Your task to perform on an android device: Show the shopping cart on newegg.com. Image 0: 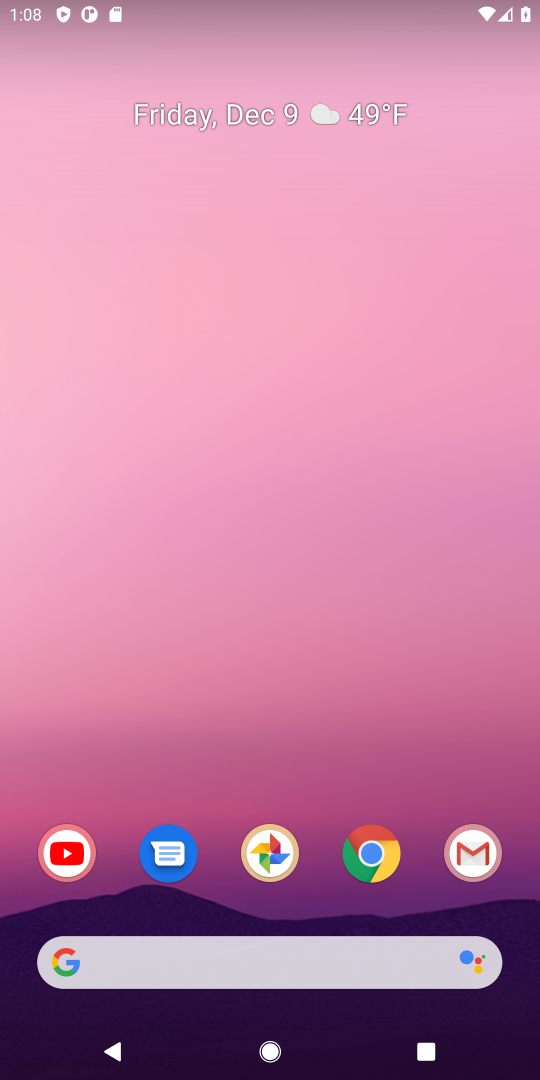
Step 0: drag from (261, 946) to (261, 368)
Your task to perform on an android device: Show the shopping cart on newegg.com. Image 1: 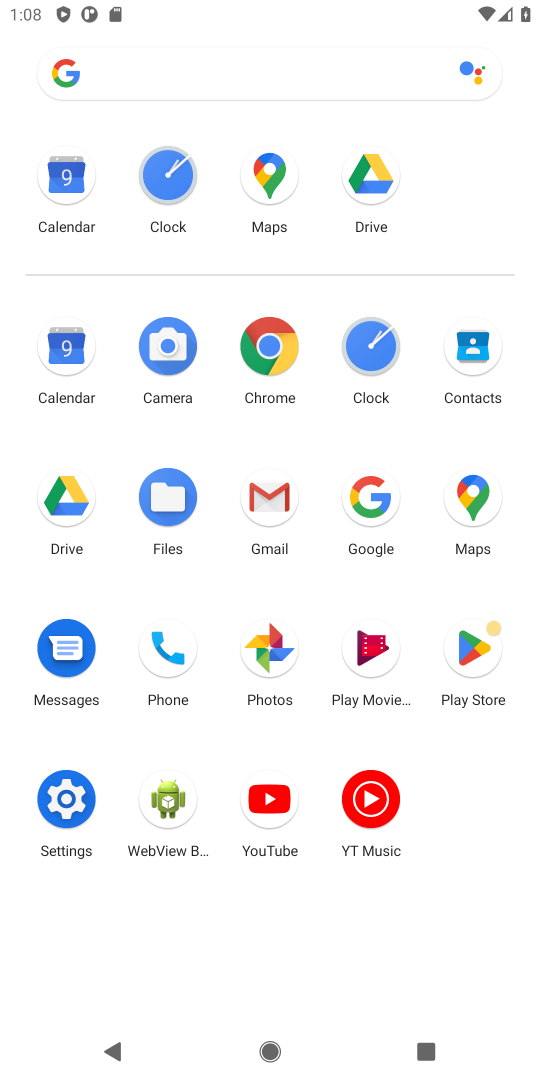
Step 1: click (382, 504)
Your task to perform on an android device: Show the shopping cart on newegg.com. Image 2: 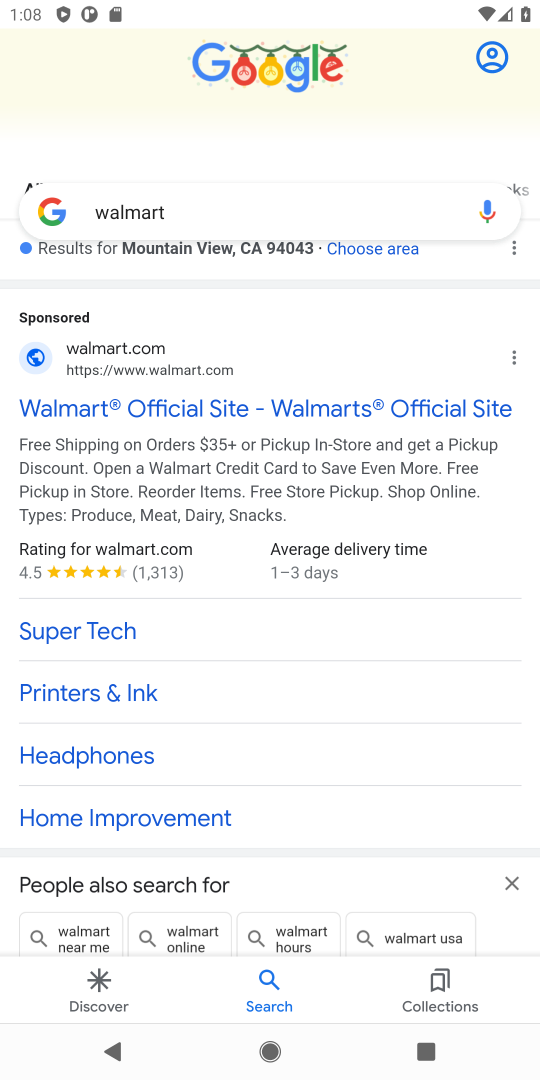
Step 2: click (131, 204)
Your task to perform on an android device: Show the shopping cart on newegg.com. Image 3: 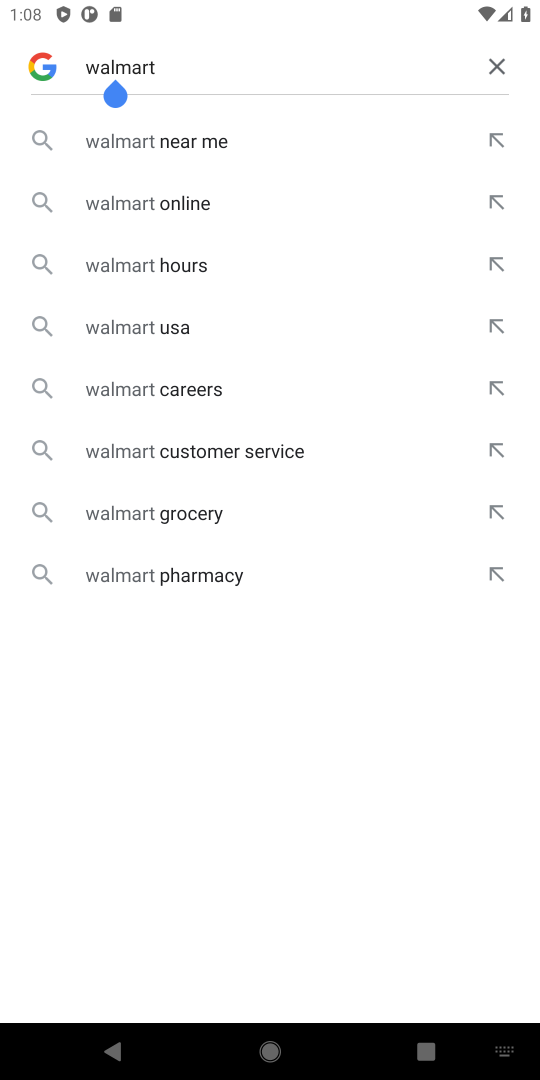
Step 3: click (502, 62)
Your task to perform on an android device: Show the shopping cart on newegg.com. Image 4: 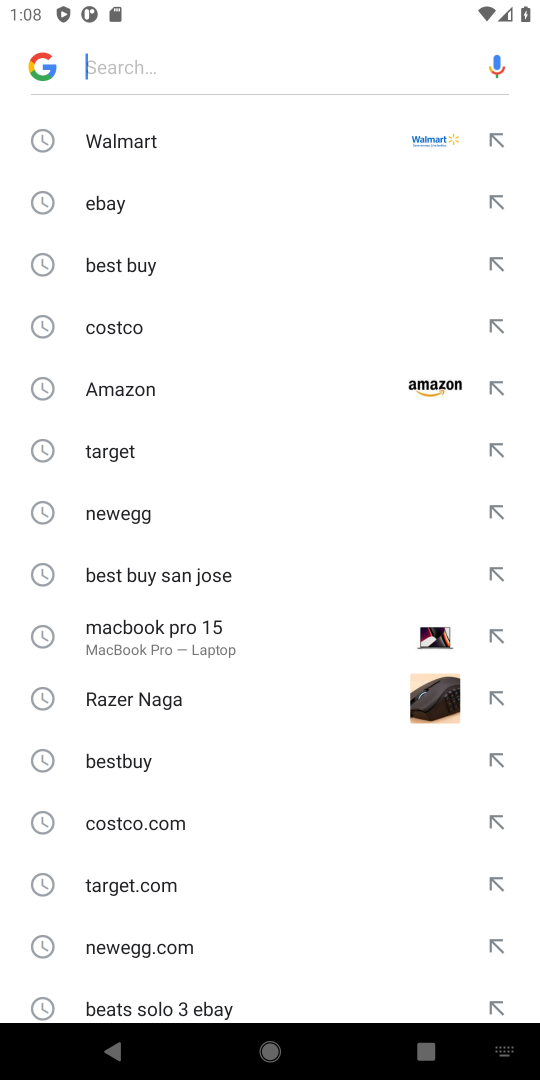
Step 4: click (126, 62)
Your task to perform on an android device: Show the shopping cart on newegg.com. Image 5: 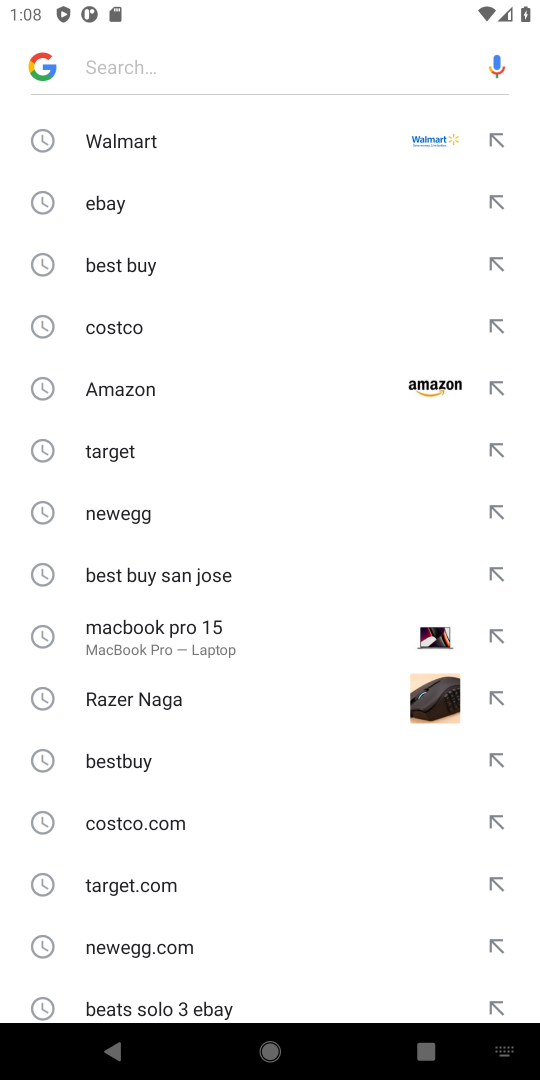
Step 5: click (128, 517)
Your task to perform on an android device: Show the shopping cart on newegg.com. Image 6: 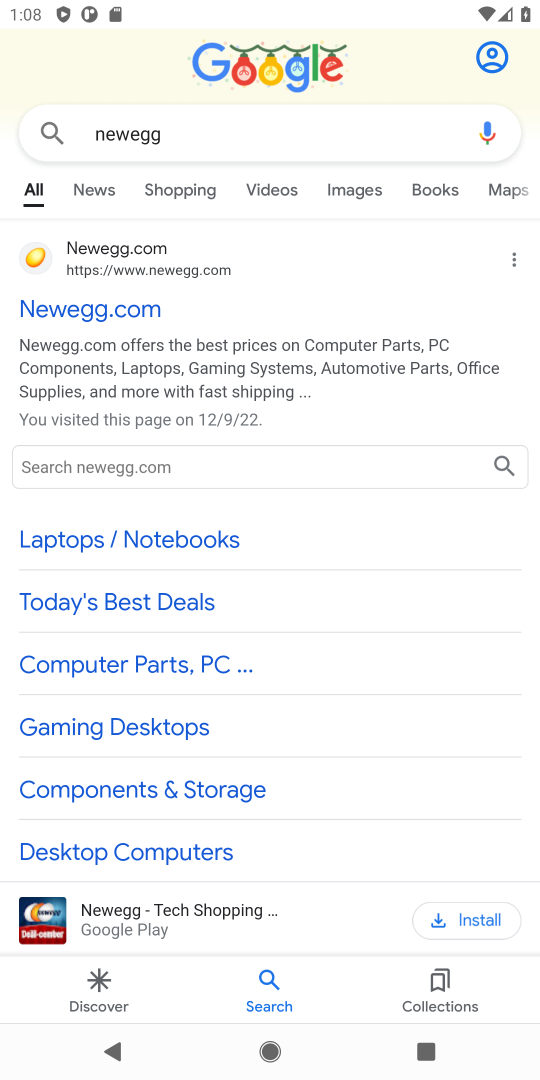
Step 6: click (127, 317)
Your task to perform on an android device: Show the shopping cart on newegg.com. Image 7: 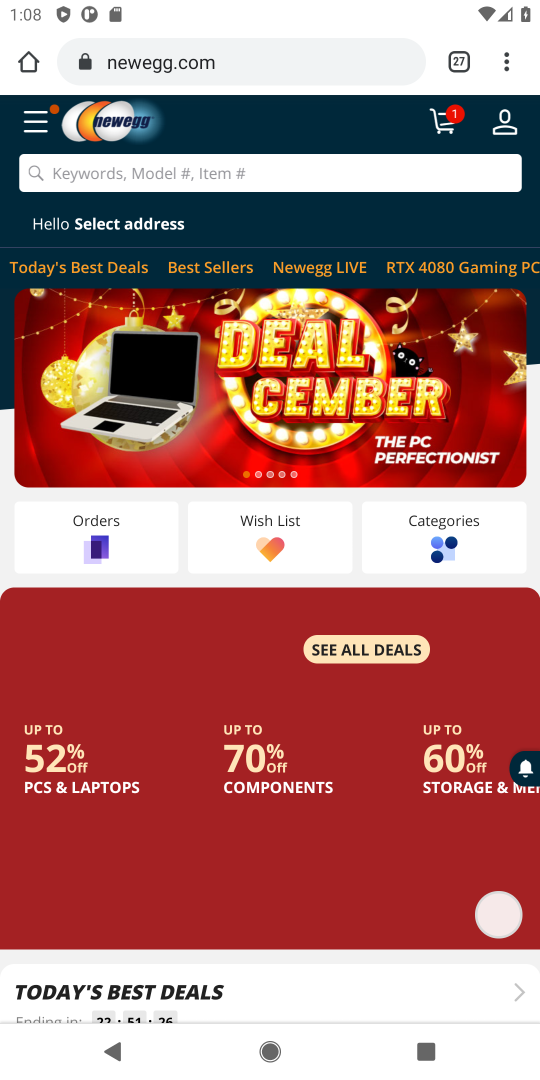
Step 7: click (447, 130)
Your task to perform on an android device: Show the shopping cart on newegg.com. Image 8: 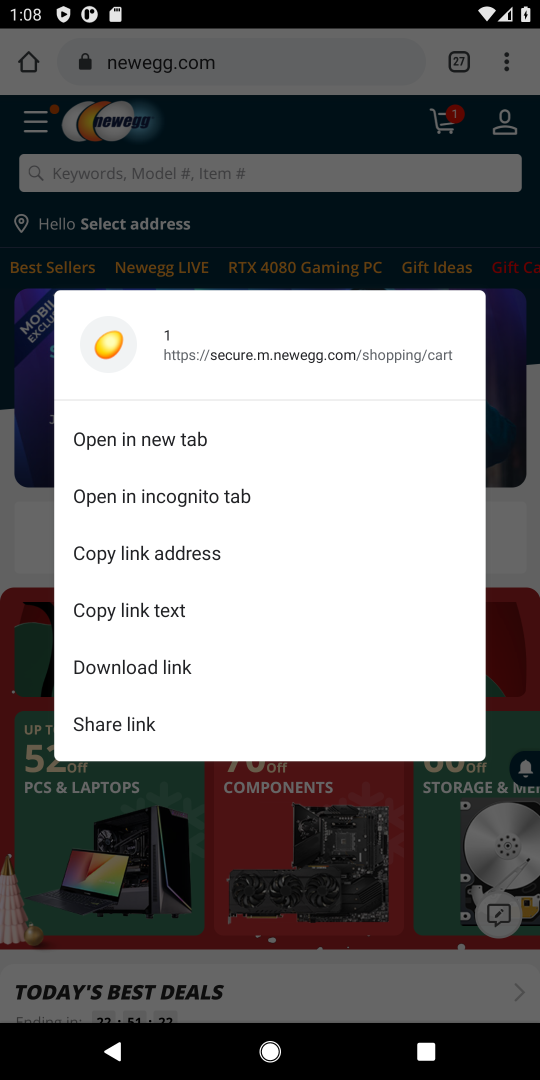
Step 8: click (275, 822)
Your task to perform on an android device: Show the shopping cart on newegg.com. Image 9: 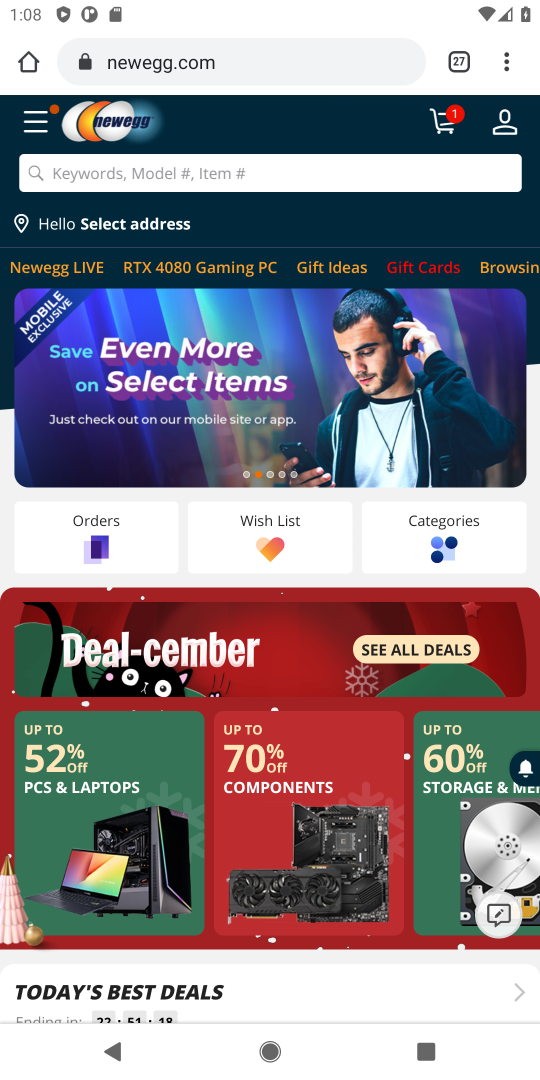
Step 9: click (440, 123)
Your task to perform on an android device: Show the shopping cart on newegg.com. Image 10: 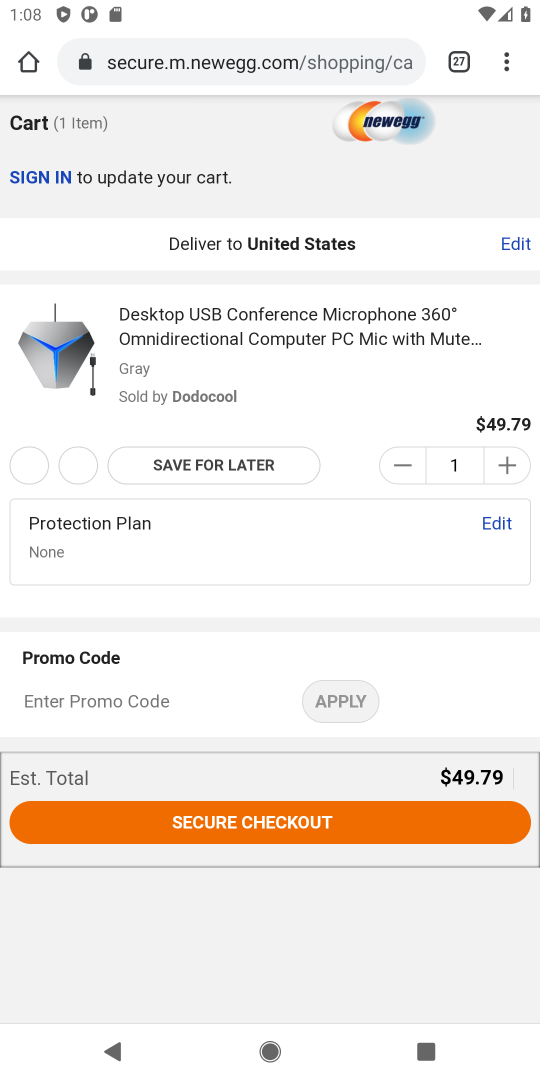
Step 10: task complete